Your task to perform on an android device: open chrome privacy settings Image 0: 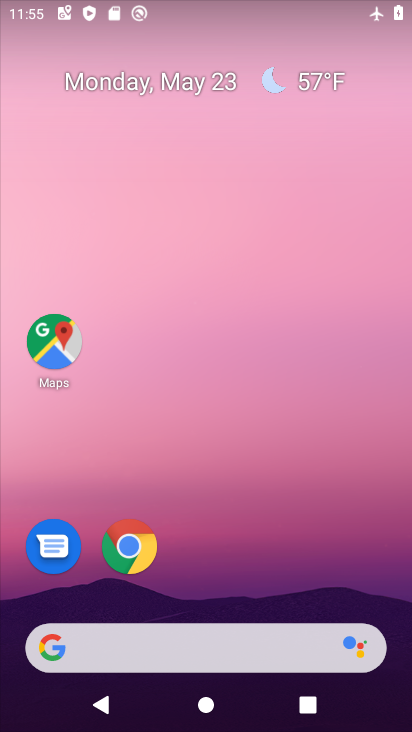
Step 0: drag from (227, 612) to (282, 68)
Your task to perform on an android device: open chrome privacy settings Image 1: 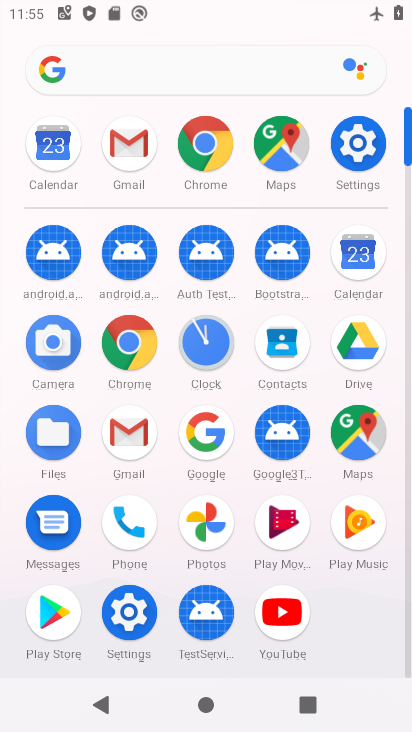
Step 1: click (119, 346)
Your task to perform on an android device: open chrome privacy settings Image 2: 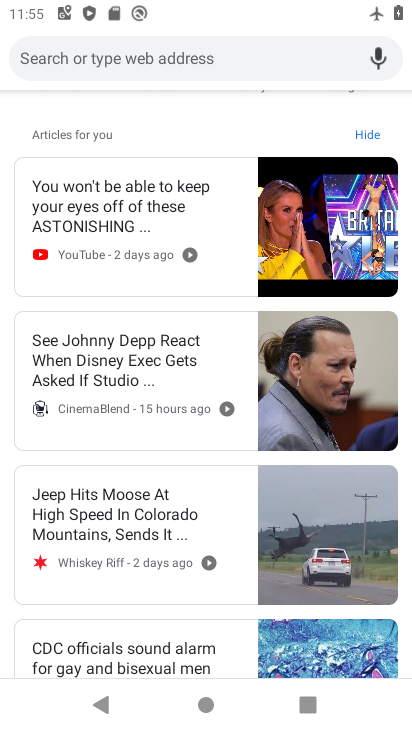
Step 2: drag from (209, 124) to (213, 286)
Your task to perform on an android device: open chrome privacy settings Image 3: 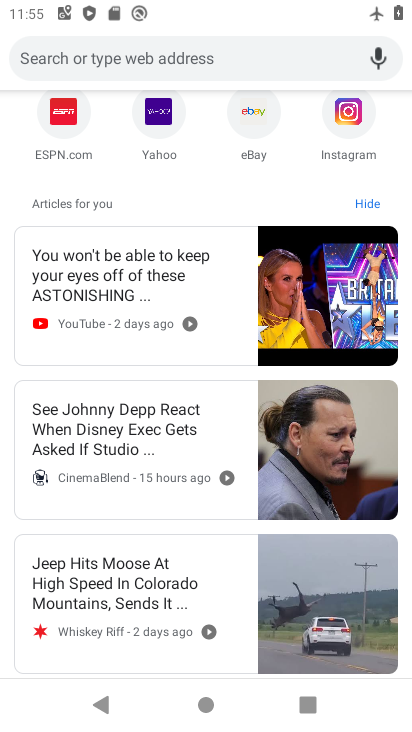
Step 3: drag from (286, 176) to (399, 569)
Your task to perform on an android device: open chrome privacy settings Image 4: 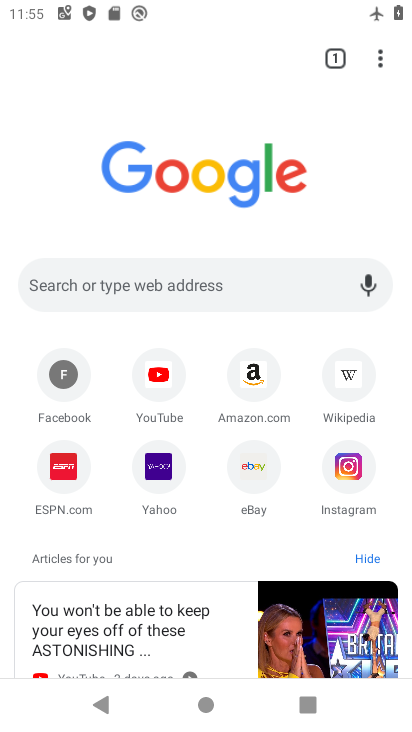
Step 4: click (376, 50)
Your task to perform on an android device: open chrome privacy settings Image 5: 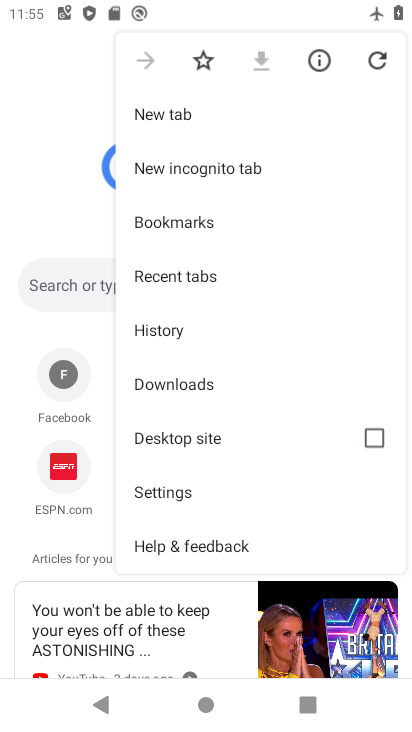
Step 5: click (167, 488)
Your task to perform on an android device: open chrome privacy settings Image 6: 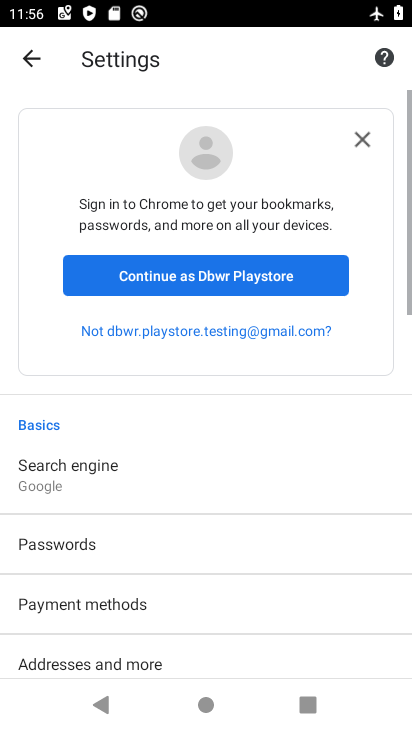
Step 6: drag from (210, 516) to (301, 100)
Your task to perform on an android device: open chrome privacy settings Image 7: 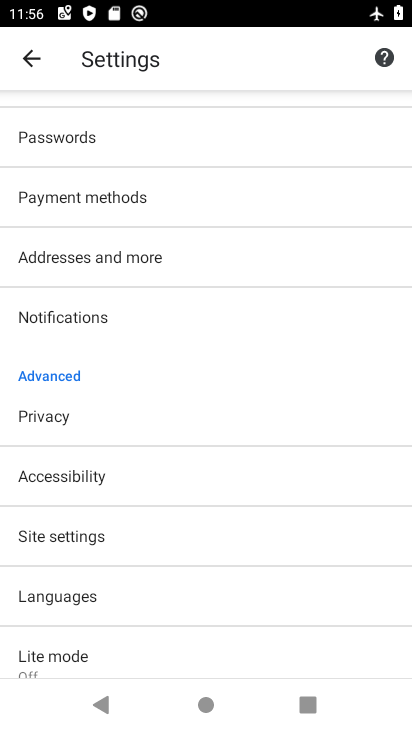
Step 7: drag from (84, 610) to (133, 249)
Your task to perform on an android device: open chrome privacy settings Image 8: 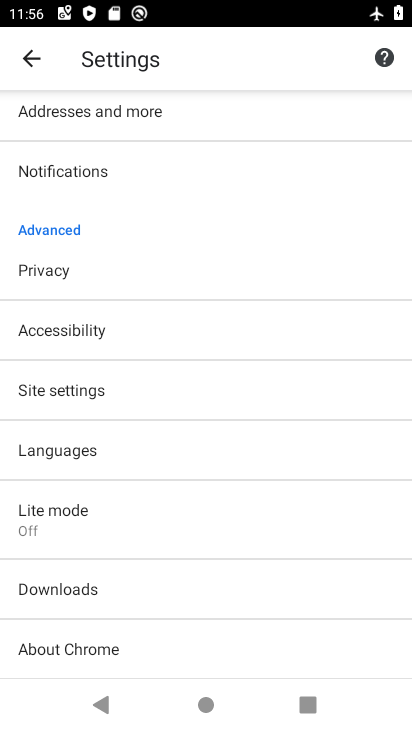
Step 8: drag from (168, 543) to (262, 496)
Your task to perform on an android device: open chrome privacy settings Image 9: 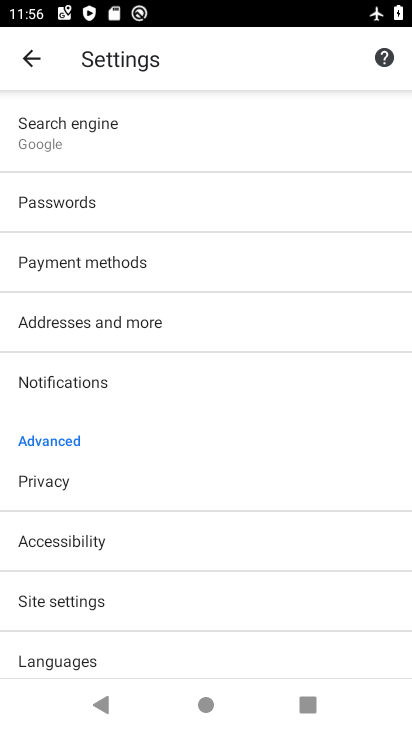
Step 9: click (63, 492)
Your task to perform on an android device: open chrome privacy settings Image 10: 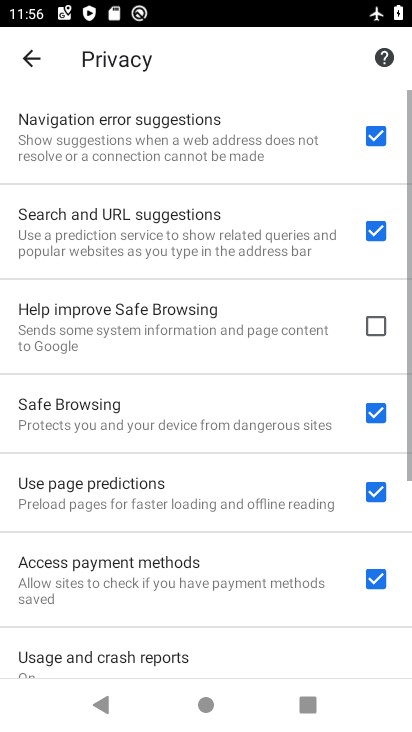
Step 10: task complete